Your task to perform on an android device: Go to wifi settings Image 0: 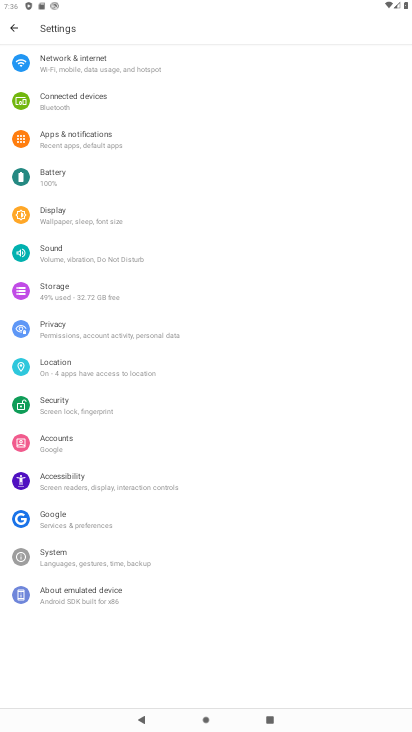
Step 0: click (69, 68)
Your task to perform on an android device: Go to wifi settings Image 1: 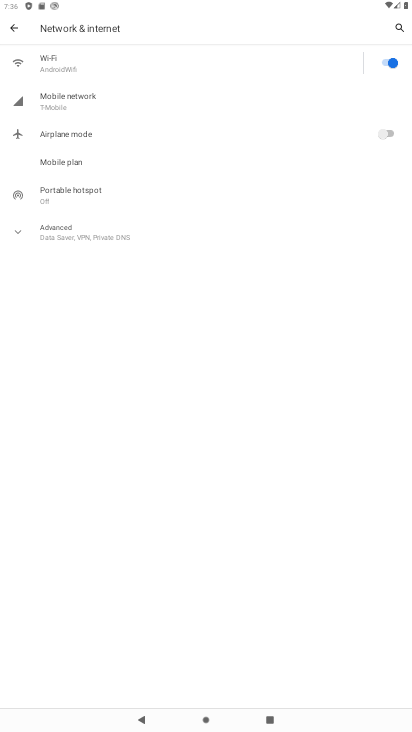
Step 1: click (53, 67)
Your task to perform on an android device: Go to wifi settings Image 2: 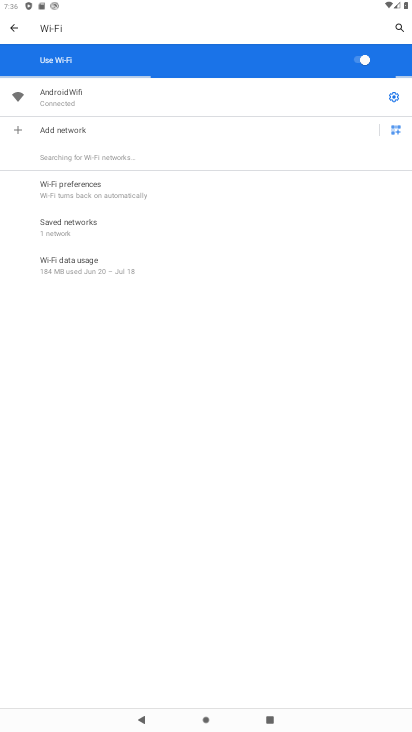
Step 2: click (395, 93)
Your task to perform on an android device: Go to wifi settings Image 3: 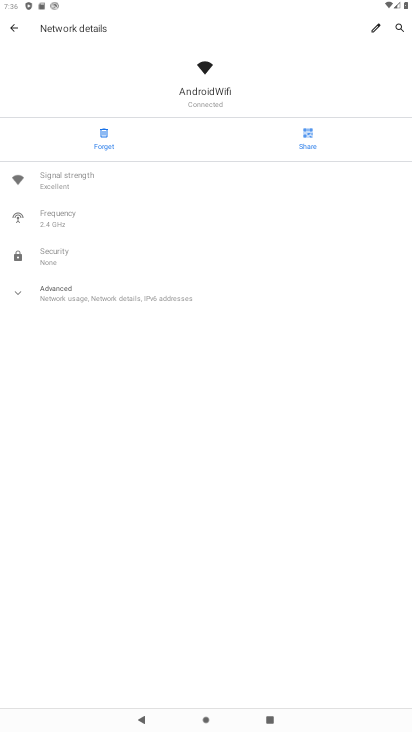
Step 3: task complete